Your task to perform on an android device: What's on my calendar today? Image 0: 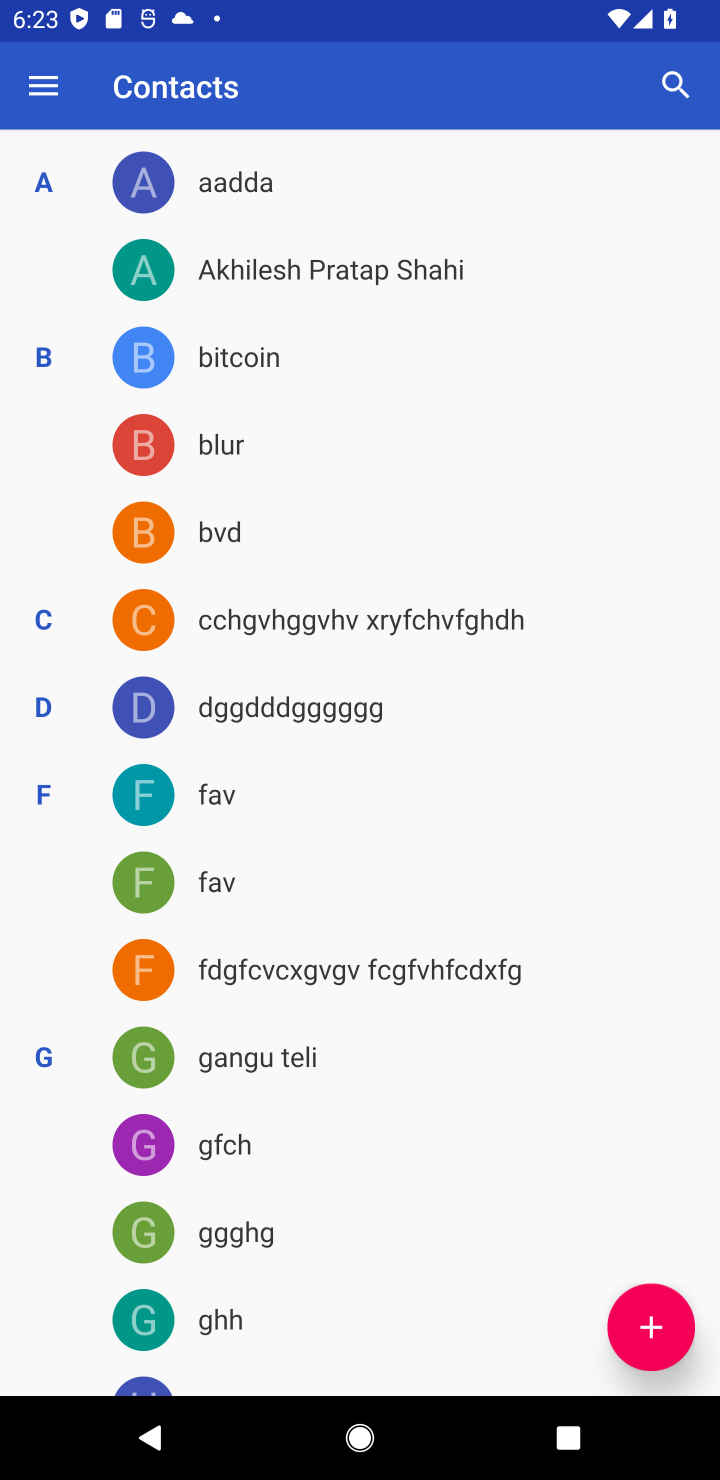
Step 0: press home button
Your task to perform on an android device: What's on my calendar today? Image 1: 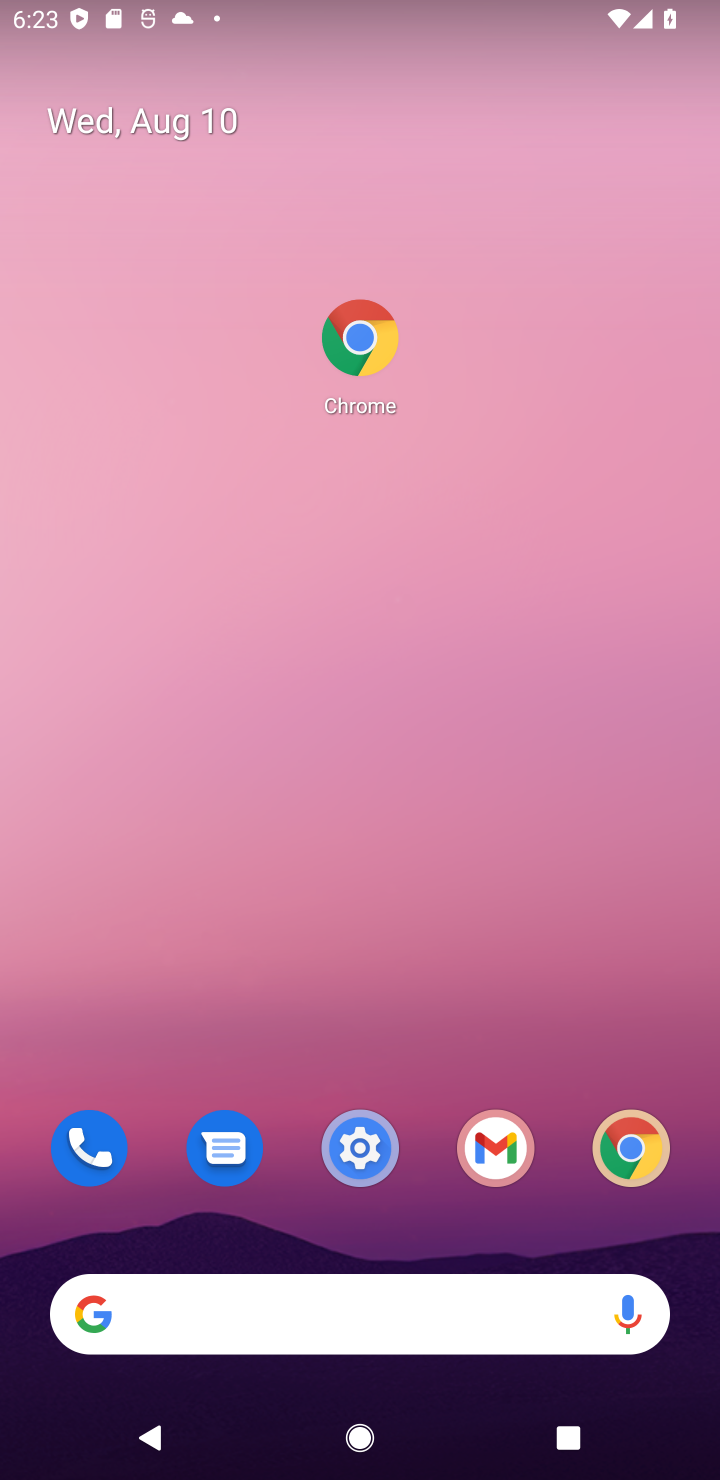
Step 1: click (165, 118)
Your task to perform on an android device: What's on my calendar today? Image 2: 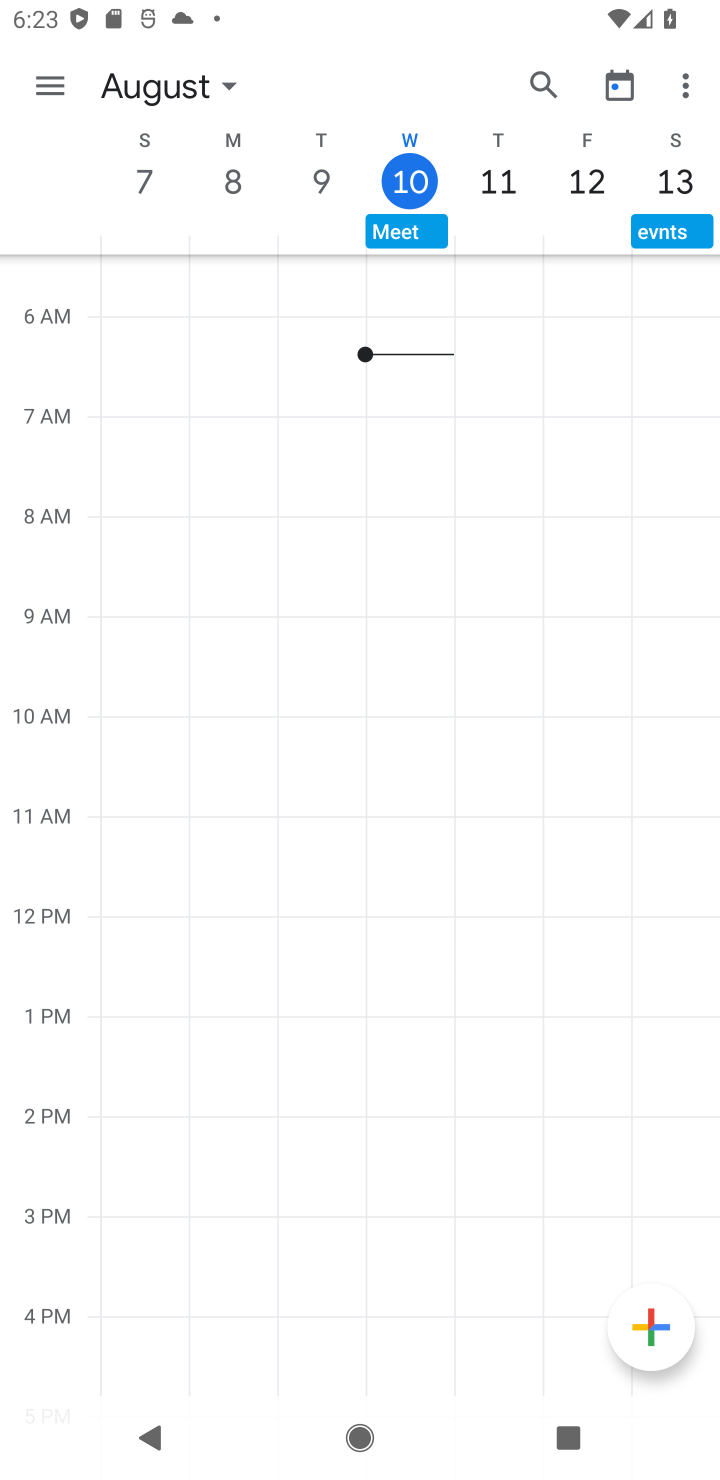
Step 2: click (66, 78)
Your task to perform on an android device: What's on my calendar today? Image 3: 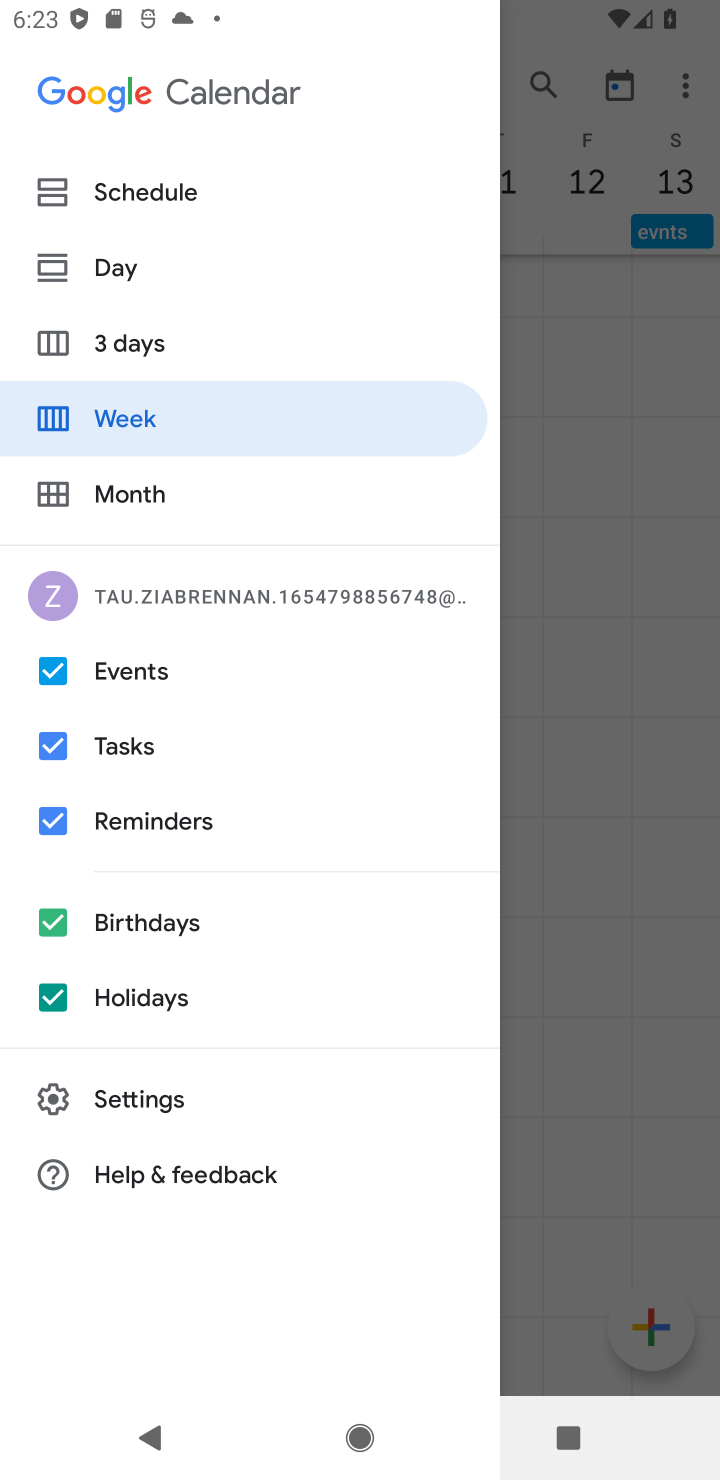
Step 3: click (98, 256)
Your task to perform on an android device: What's on my calendar today? Image 4: 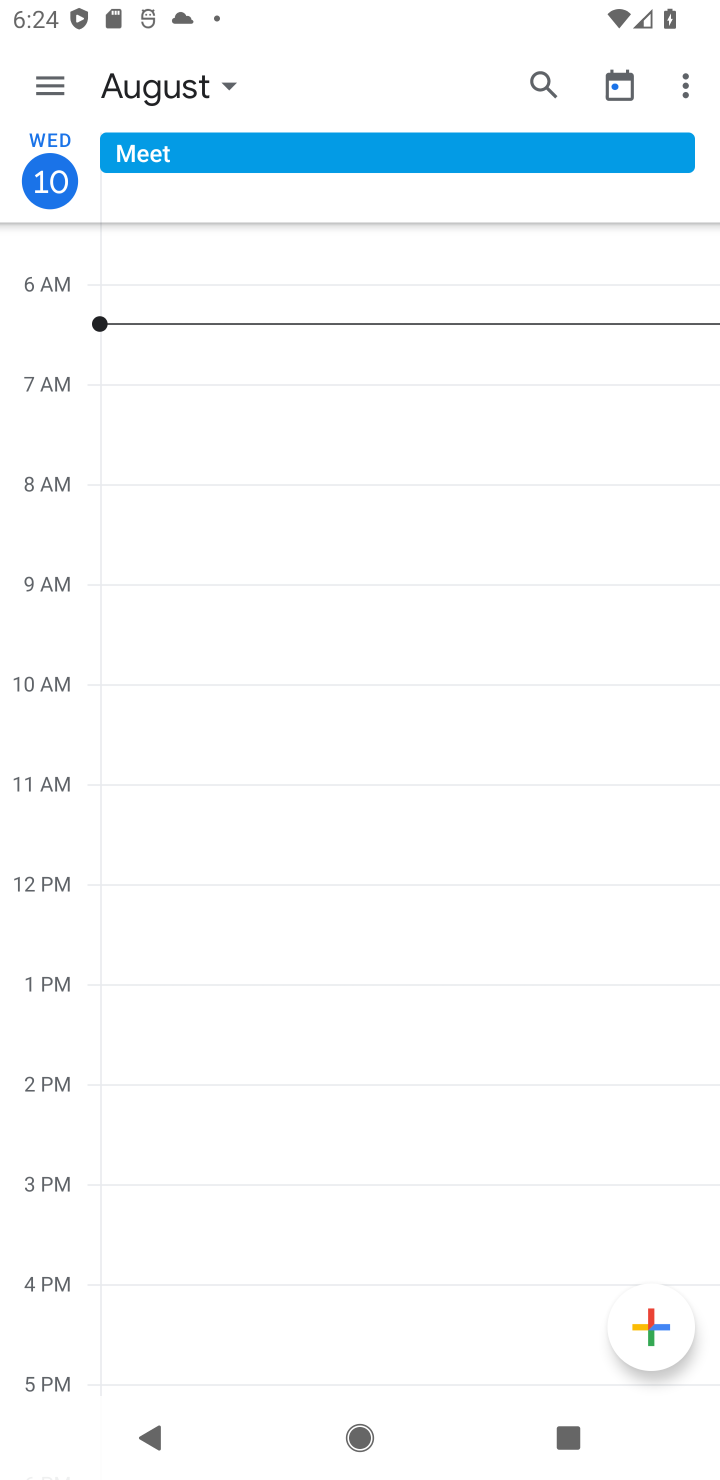
Step 4: task complete